Your task to perform on an android device: set default search engine in the chrome app Image 0: 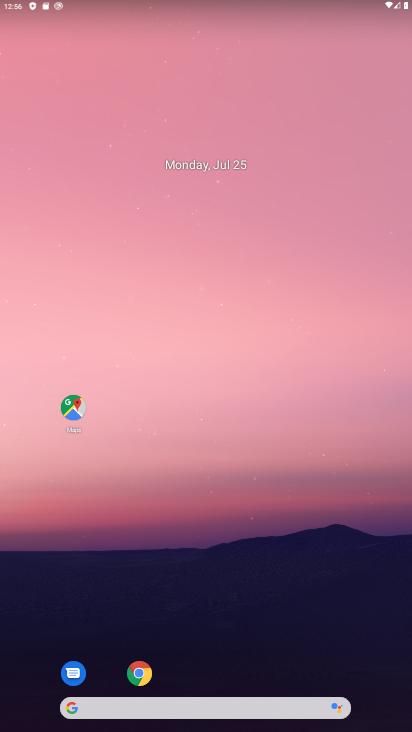
Step 0: click (138, 676)
Your task to perform on an android device: set default search engine in the chrome app Image 1: 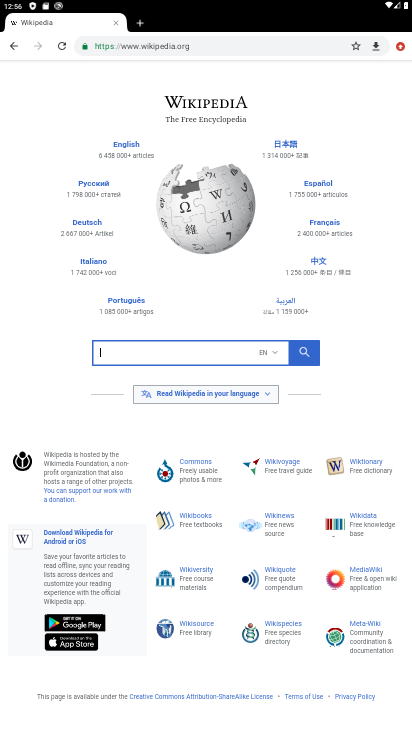
Step 1: click (399, 45)
Your task to perform on an android device: set default search engine in the chrome app Image 2: 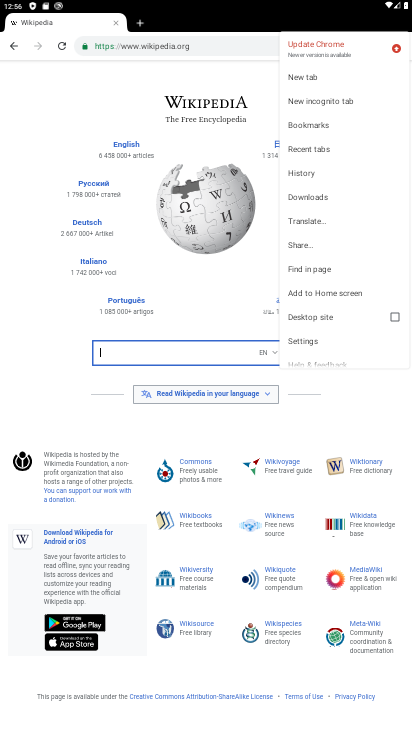
Step 2: click (308, 337)
Your task to perform on an android device: set default search engine in the chrome app Image 3: 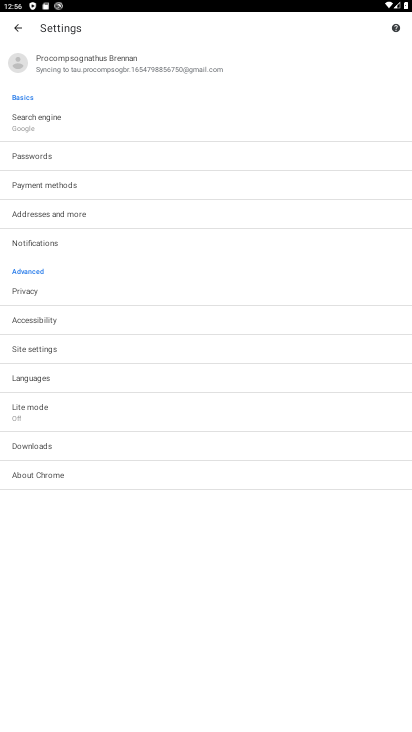
Step 3: click (38, 112)
Your task to perform on an android device: set default search engine in the chrome app Image 4: 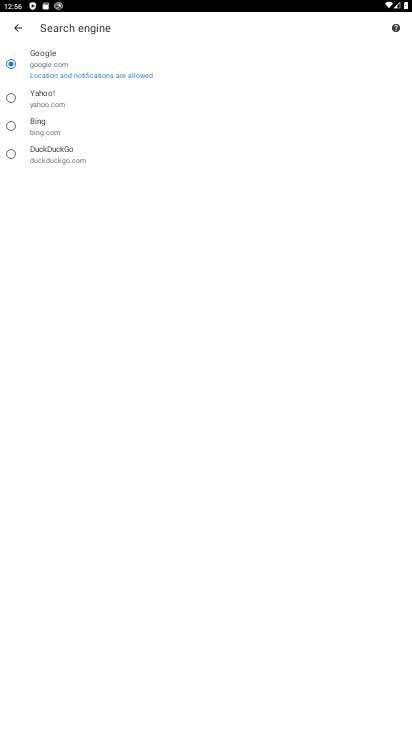
Step 4: click (25, 100)
Your task to perform on an android device: set default search engine in the chrome app Image 5: 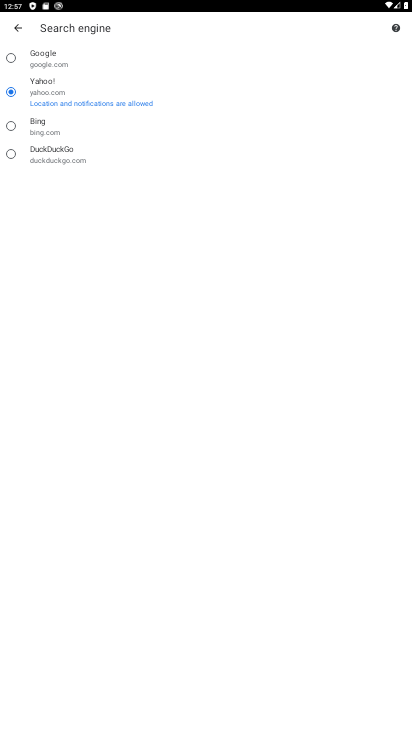
Step 5: task complete